Your task to perform on an android device: Open calendar and show me the first week of next month Image 0: 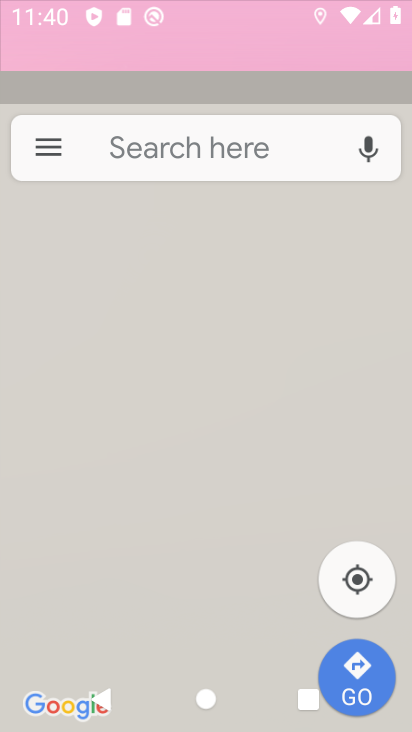
Step 0: press home button
Your task to perform on an android device: Open calendar and show me the first week of next month Image 1: 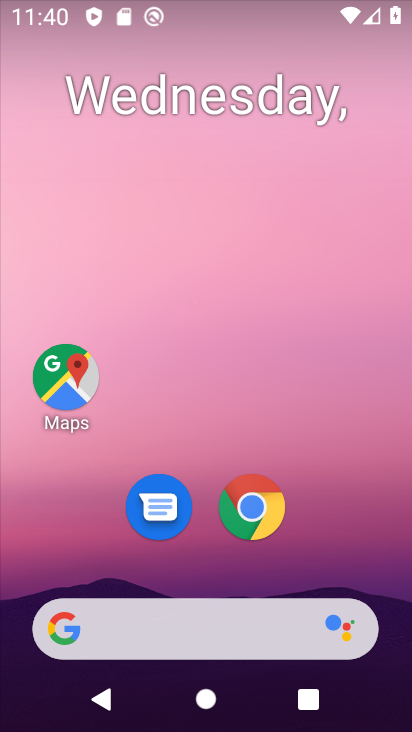
Step 1: drag from (300, 619) to (405, 160)
Your task to perform on an android device: Open calendar and show me the first week of next month Image 2: 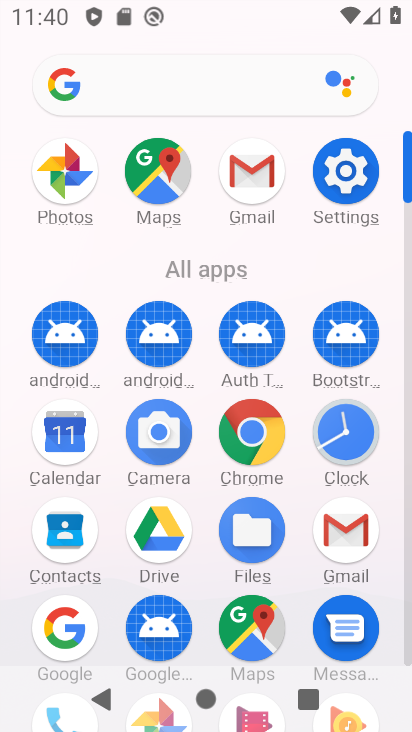
Step 2: click (69, 452)
Your task to perform on an android device: Open calendar and show me the first week of next month Image 3: 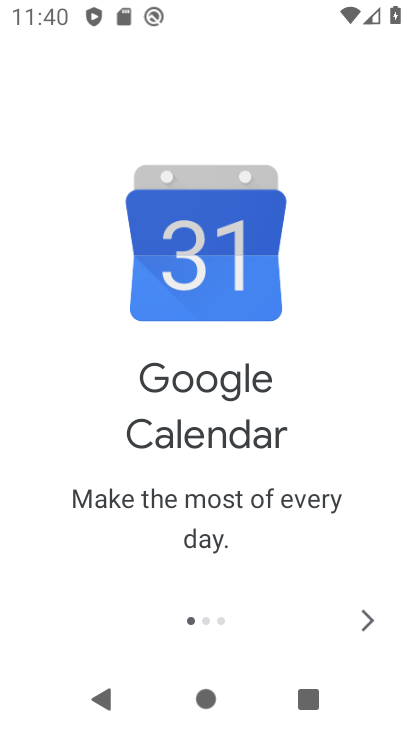
Step 3: click (373, 619)
Your task to perform on an android device: Open calendar and show me the first week of next month Image 4: 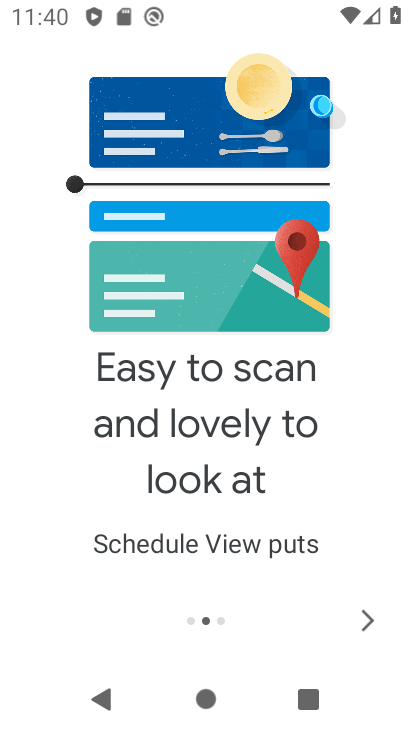
Step 4: click (377, 607)
Your task to perform on an android device: Open calendar and show me the first week of next month Image 5: 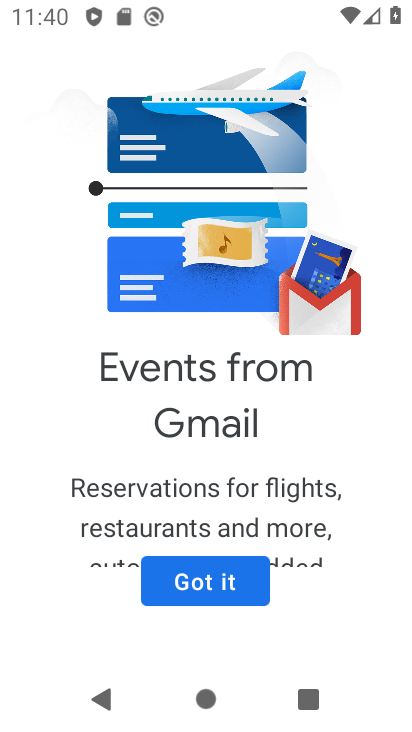
Step 5: click (225, 593)
Your task to perform on an android device: Open calendar and show me the first week of next month Image 6: 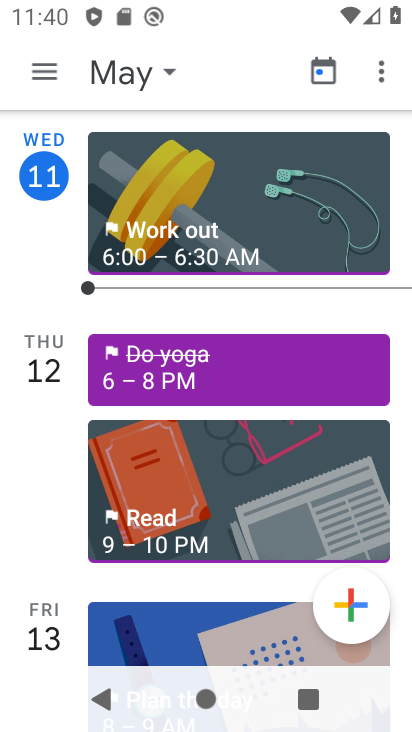
Step 6: click (146, 85)
Your task to perform on an android device: Open calendar and show me the first week of next month Image 7: 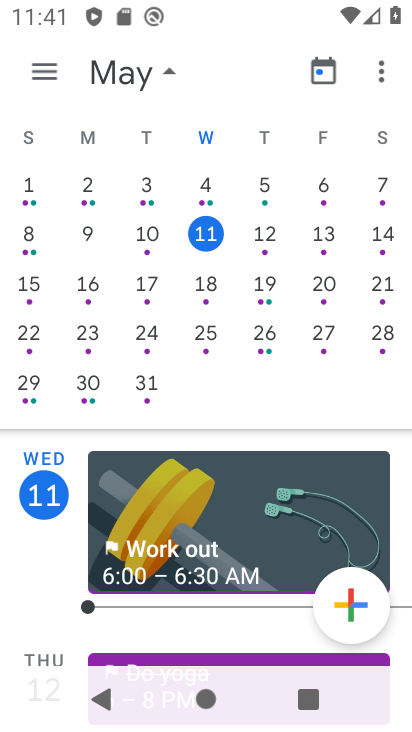
Step 7: drag from (313, 257) to (46, 229)
Your task to perform on an android device: Open calendar and show me the first week of next month Image 8: 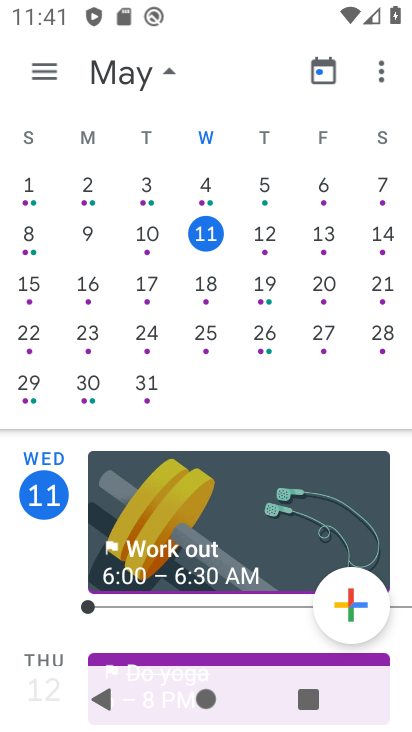
Step 8: drag from (298, 279) to (2, 274)
Your task to perform on an android device: Open calendar and show me the first week of next month Image 9: 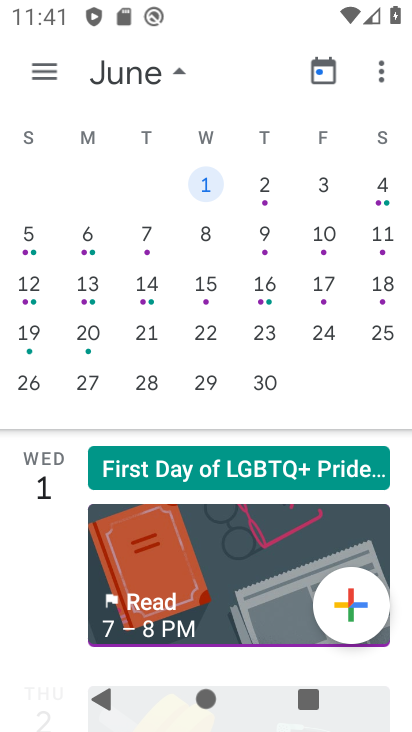
Step 9: click (30, 263)
Your task to perform on an android device: Open calendar and show me the first week of next month Image 10: 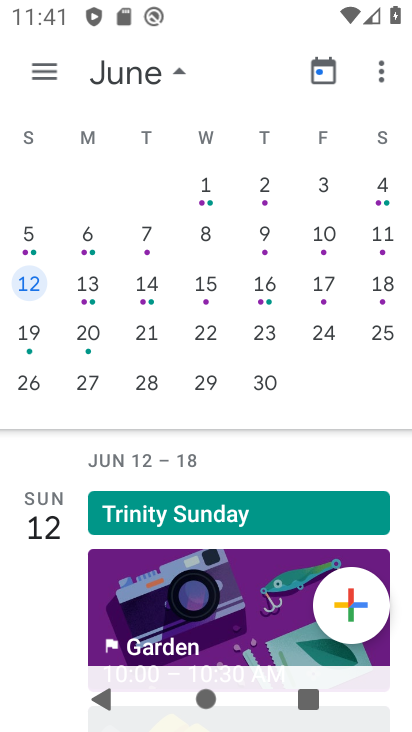
Step 10: click (39, 247)
Your task to perform on an android device: Open calendar and show me the first week of next month Image 11: 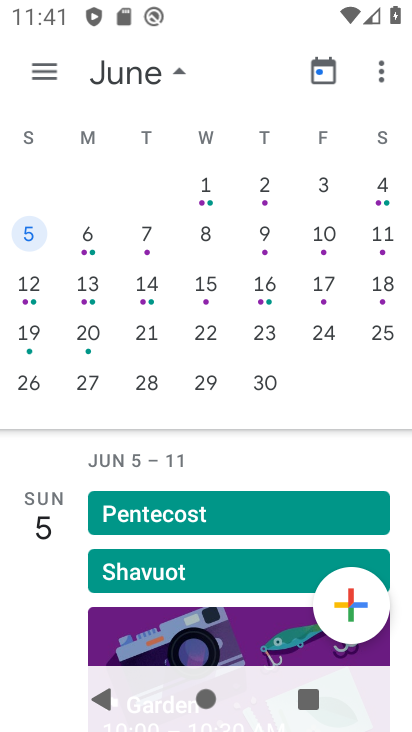
Step 11: task complete